Your task to perform on an android device: Open the map Image 0: 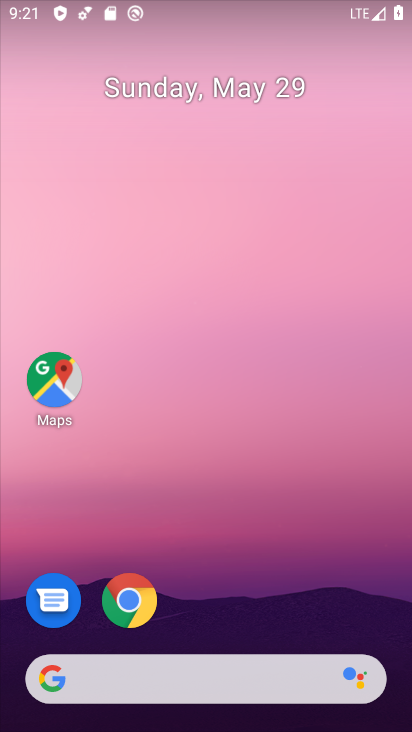
Step 0: click (59, 373)
Your task to perform on an android device: Open the map Image 1: 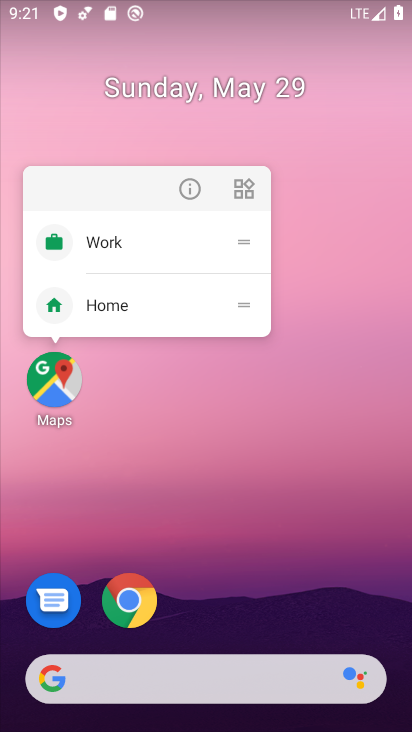
Step 1: click (255, 443)
Your task to perform on an android device: Open the map Image 2: 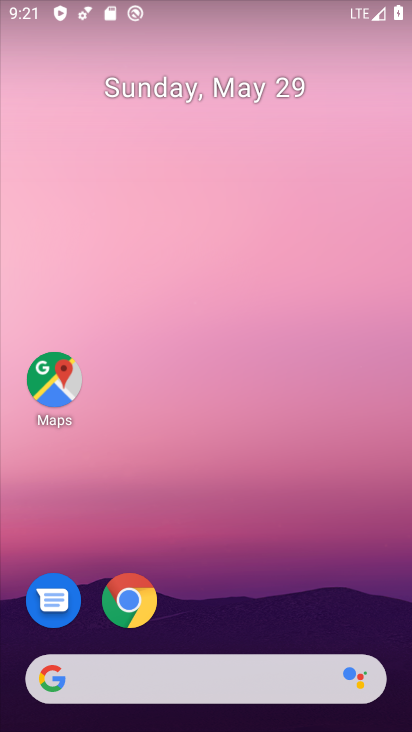
Step 2: drag from (258, 584) to (313, 25)
Your task to perform on an android device: Open the map Image 3: 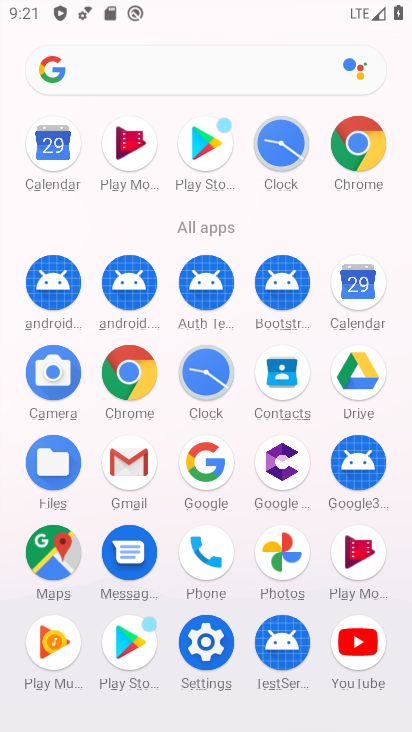
Step 3: click (50, 534)
Your task to perform on an android device: Open the map Image 4: 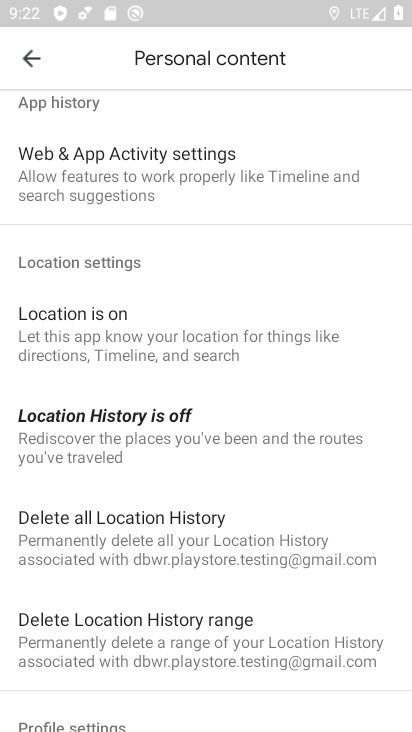
Step 4: click (37, 62)
Your task to perform on an android device: Open the map Image 5: 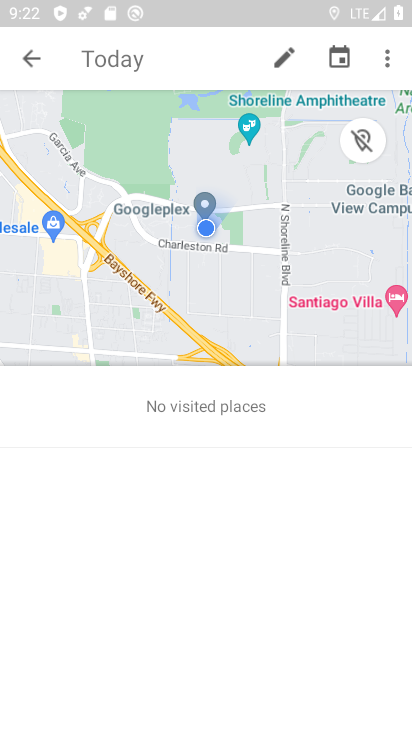
Step 5: click (27, 59)
Your task to perform on an android device: Open the map Image 6: 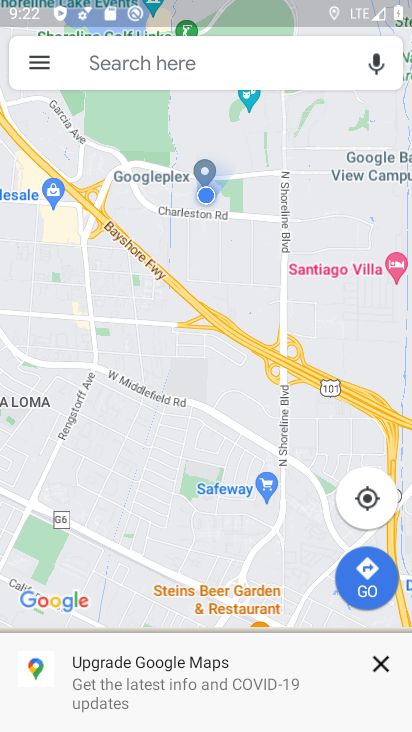
Step 6: task complete